Your task to perform on an android device: Is it going to rain today? Image 0: 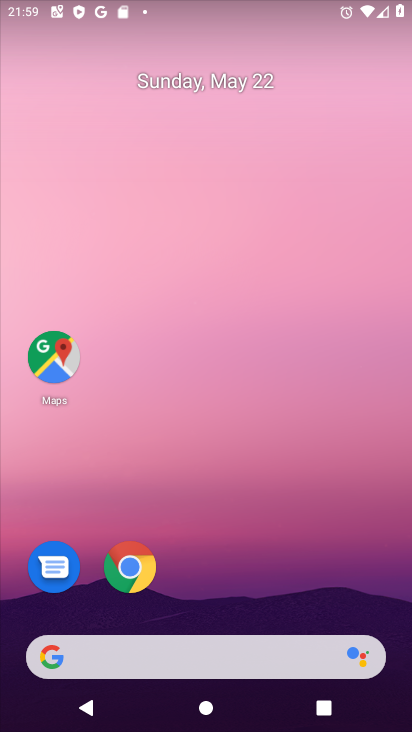
Step 0: drag from (192, 574) to (207, 119)
Your task to perform on an android device: Is it going to rain today? Image 1: 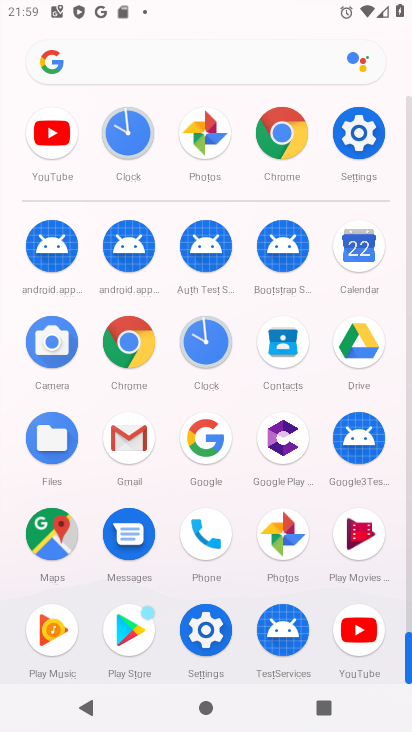
Step 1: click (248, 69)
Your task to perform on an android device: Is it going to rain today? Image 2: 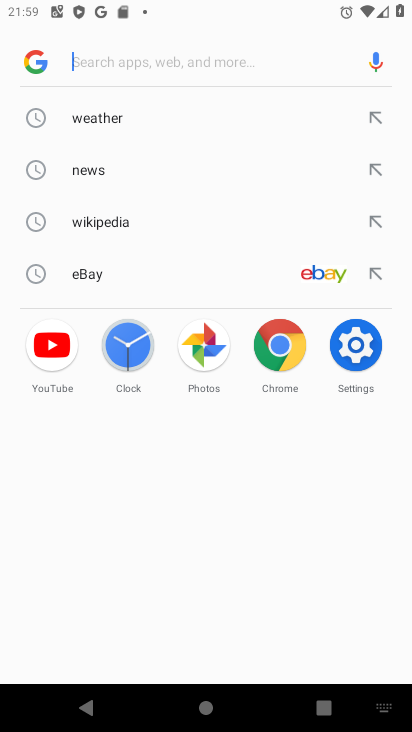
Step 2: type "weat"
Your task to perform on an android device: Is it going to rain today? Image 3: 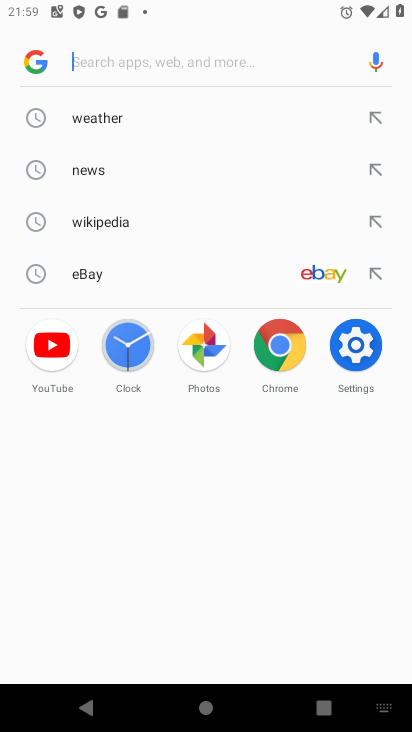
Step 3: click (146, 124)
Your task to perform on an android device: Is it going to rain today? Image 4: 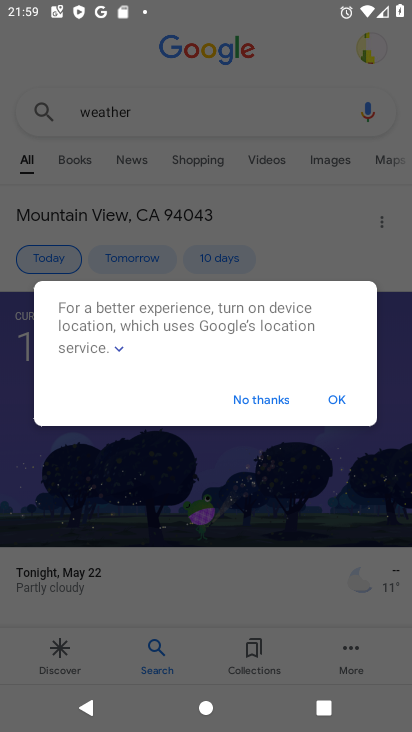
Step 4: click (332, 392)
Your task to perform on an android device: Is it going to rain today? Image 5: 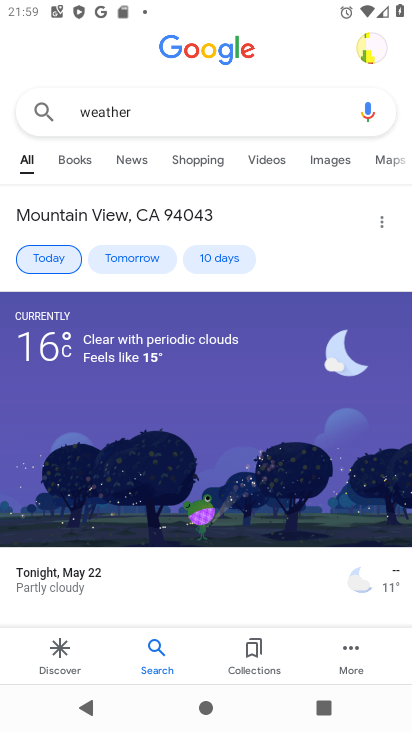
Step 5: task complete